Your task to perform on an android device: turn on notifications settings in the gmail app Image 0: 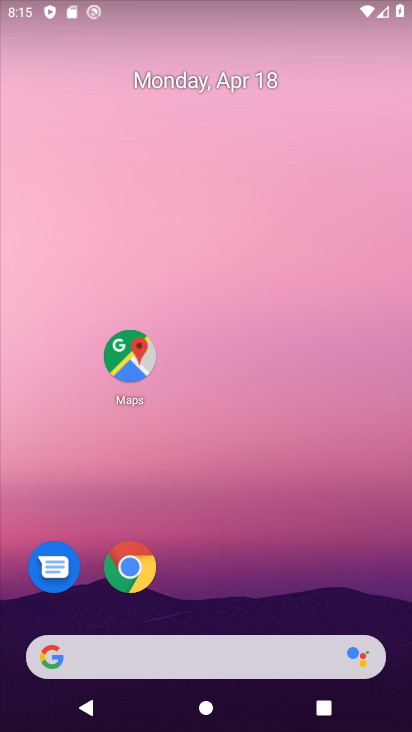
Step 0: drag from (282, 701) to (381, 20)
Your task to perform on an android device: turn on notifications settings in the gmail app Image 1: 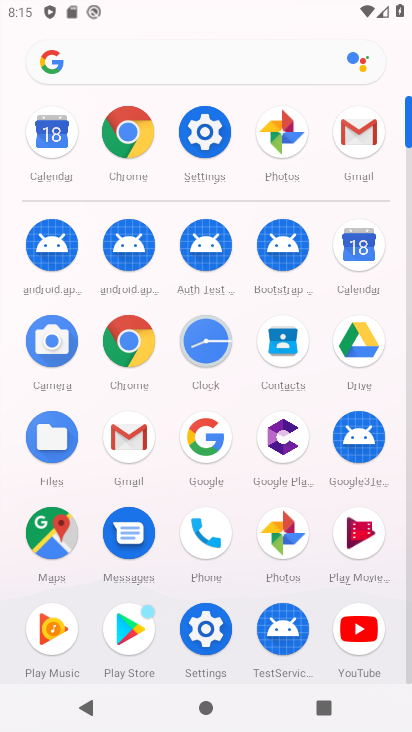
Step 1: click (366, 141)
Your task to perform on an android device: turn on notifications settings in the gmail app Image 2: 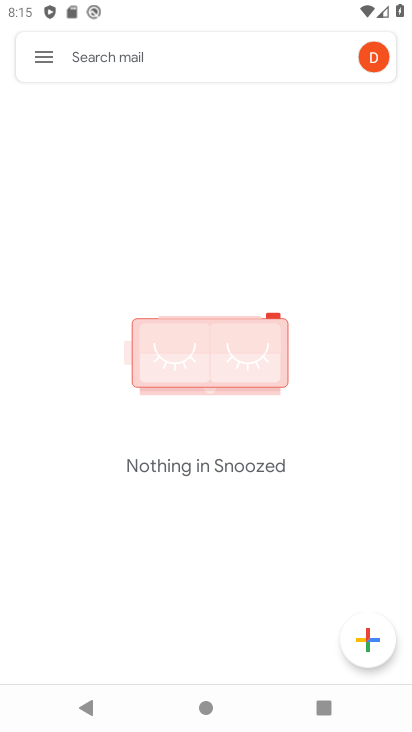
Step 2: click (53, 59)
Your task to perform on an android device: turn on notifications settings in the gmail app Image 3: 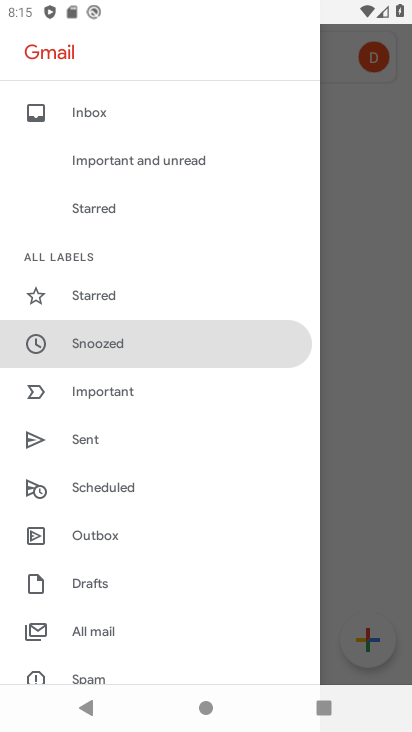
Step 3: drag from (122, 629) to (123, 371)
Your task to perform on an android device: turn on notifications settings in the gmail app Image 4: 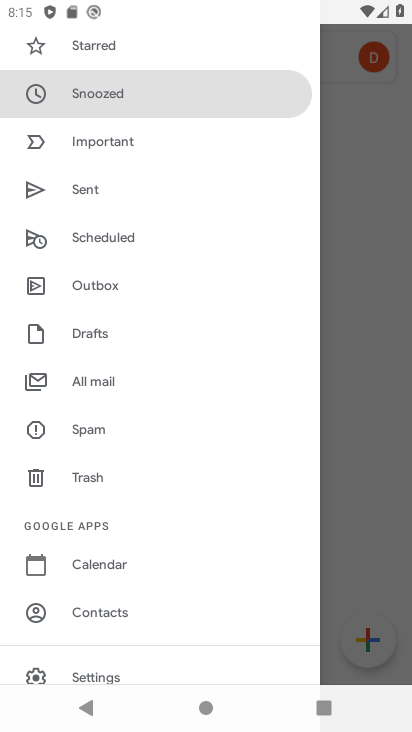
Step 4: click (106, 676)
Your task to perform on an android device: turn on notifications settings in the gmail app Image 5: 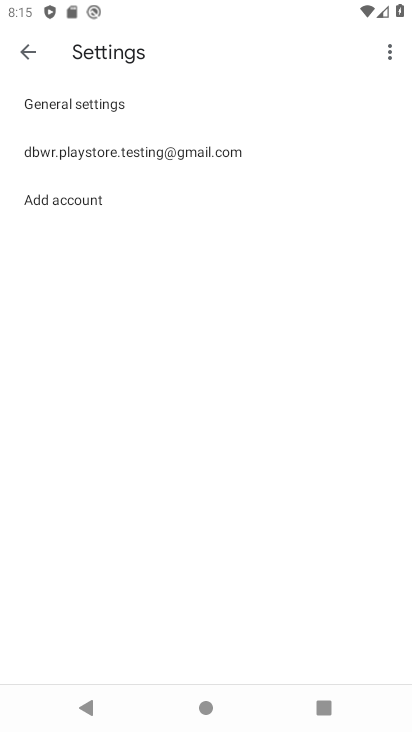
Step 5: click (89, 161)
Your task to perform on an android device: turn on notifications settings in the gmail app Image 6: 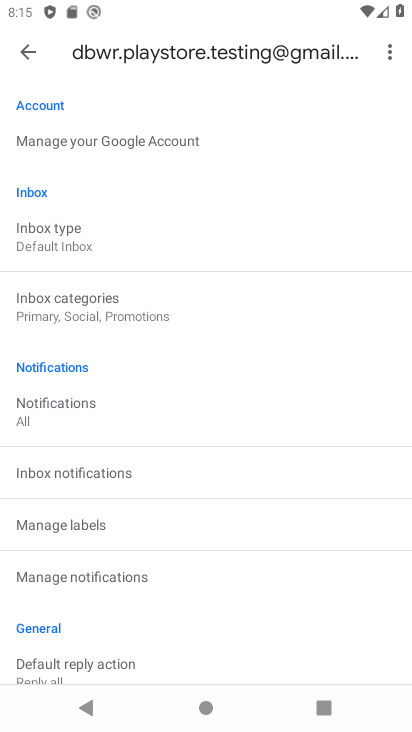
Step 6: click (77, 415)
Your task to perform on an android device: turn on notifications settings in the gmail app Image 7: 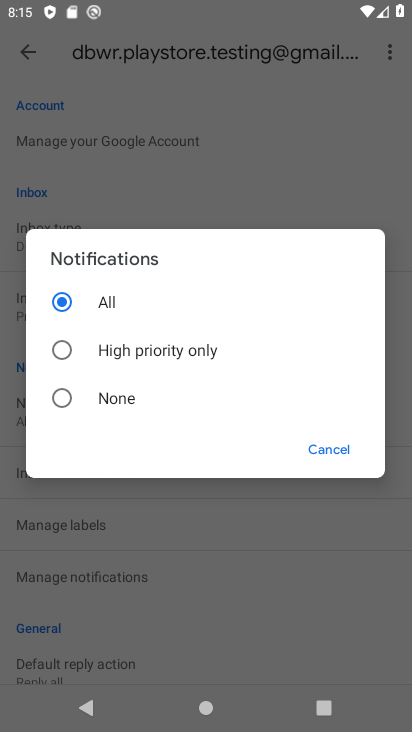
Step 7: task complete